Your task to perform on an android device: add a label to a message in the gmail app Image 0: 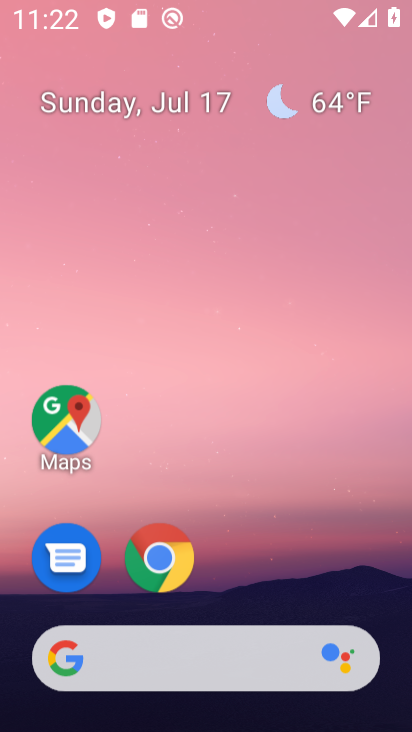
Step 0: press home button
Your task to perform on an android device: add a label to a message in the gmail app Image 1: 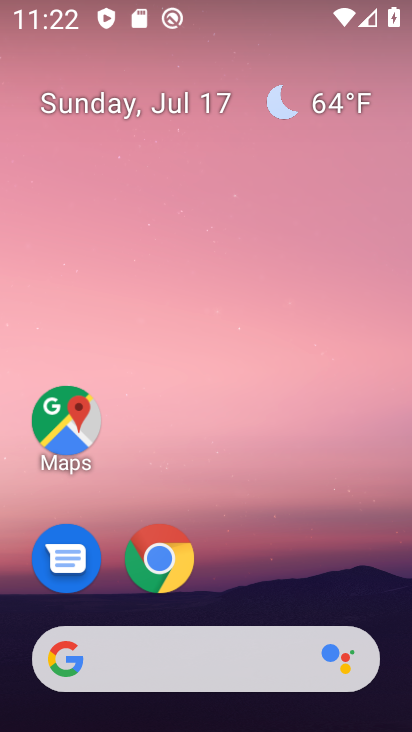
Step 1: drag from (328, 604) to (368, 54)
Your task to perform on an android device: add a label to a message in the gmail app Image 2: 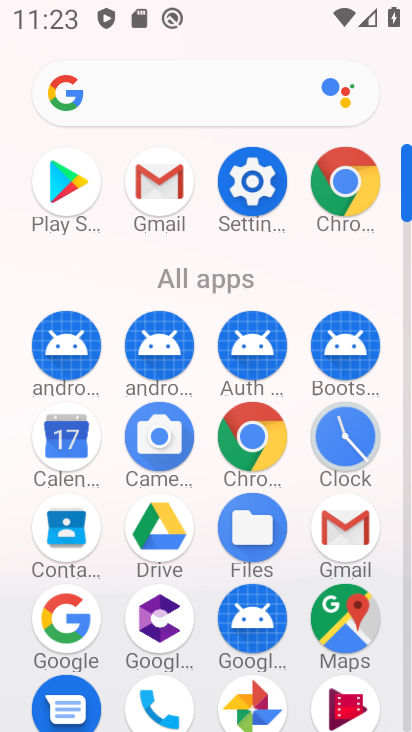
Step 2: click (352, 525)
Your task to perform on an android device: add a label to a message in the gmail app Image 3: 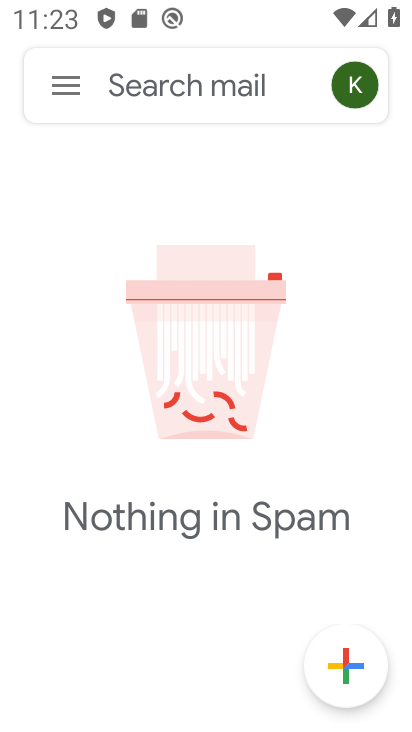
Step 3: click (45, 79)
Your task to perform on an android device: add a label to a message in the gmail app Image 4: 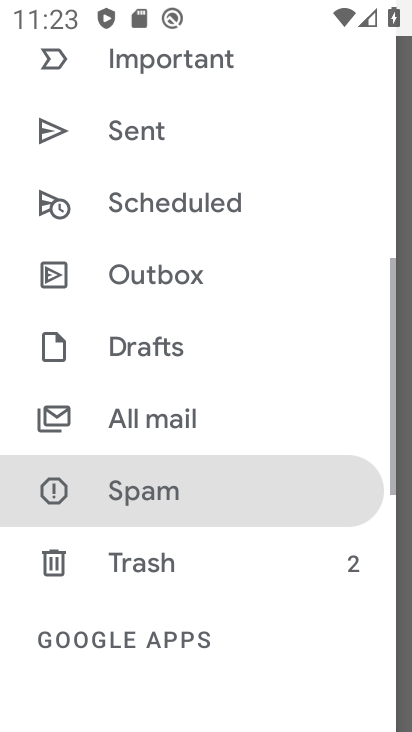
Step 4: drag from (304, 204) to (298, 354)
Your task to perform on an android device: add a label to a message in the gmail app Image 5: 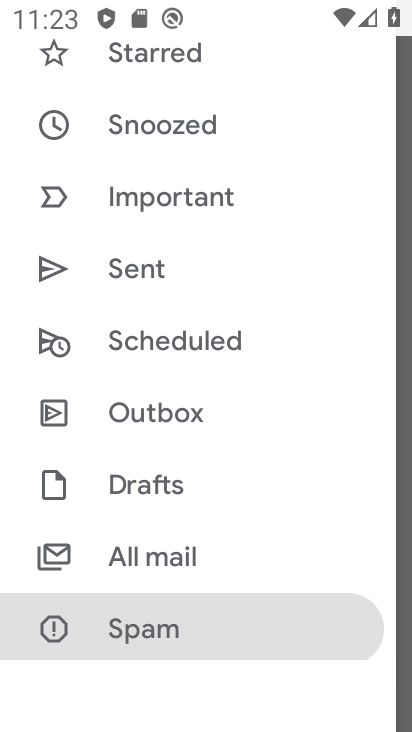
Step 5: drag from (311, 181) to (313, 317)
Your task to perform on an android device: add a label to a message in the gmail app Image 6: 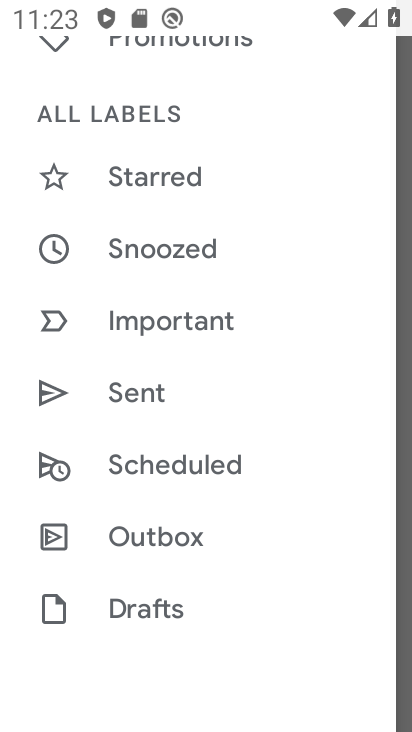
Step 6: drag from (296, 156) to (300, 352)
Your task to perform on an android device: add a label to a message in the gmail app Image 7: 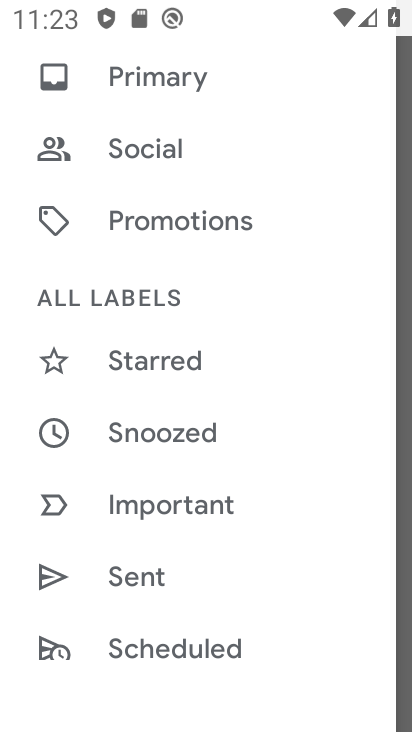
Step 7: drag from (296, 149) to (309, 338)
Your task to perform on an android device: add a label to a message in the gmail app Image 8: 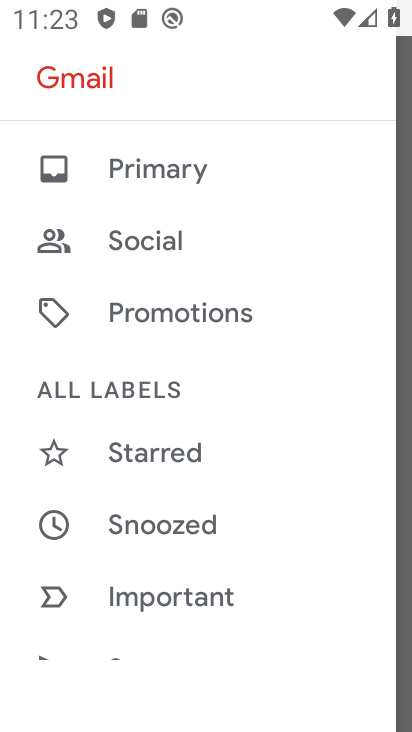
Step 8: click (213, 161)
Your task to perform on an android device: add a label to a message in the gmail app Image 9: 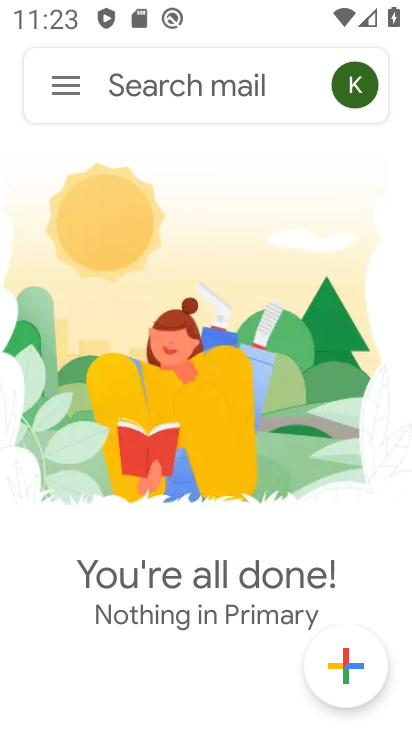
Step 9: task complete